Your task to perform on an android device: set default search engine in the chrome app Image 0: 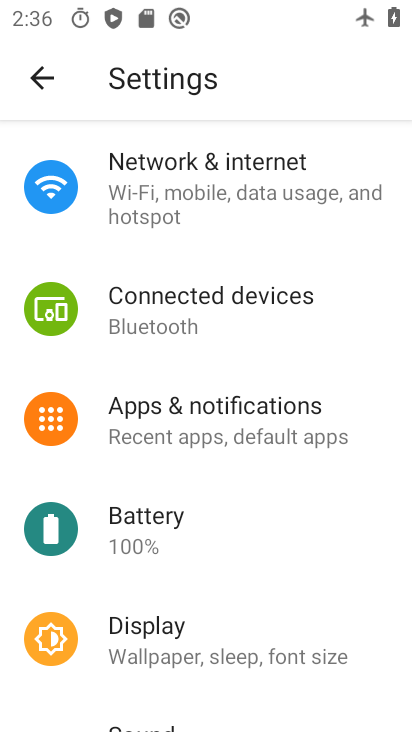
Step 0: press home button
Your task to perform on an android device: set default search engine in the chrome app Image 1: 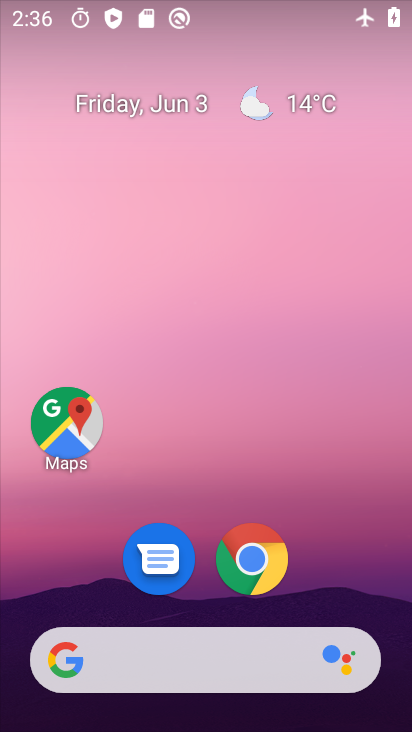
Step 1: click (257, 552)
Your task to perform on an android device: set default search engine in the chrome app Image 2: 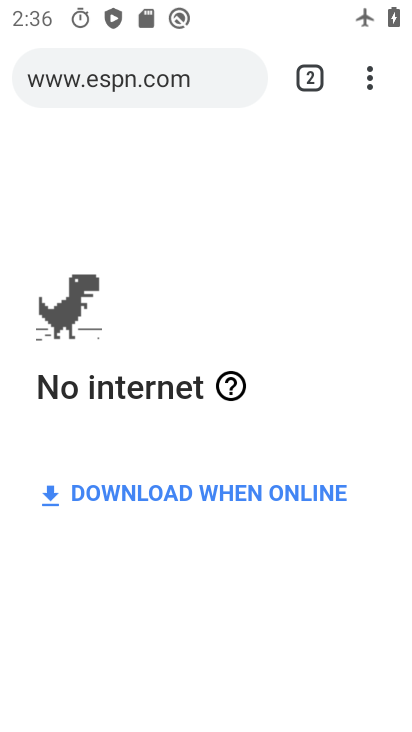
Step 2: drag from (365, 72) to (108, 650)
Your task to perform on an android device: set default search engine in the chrome app Image 3: 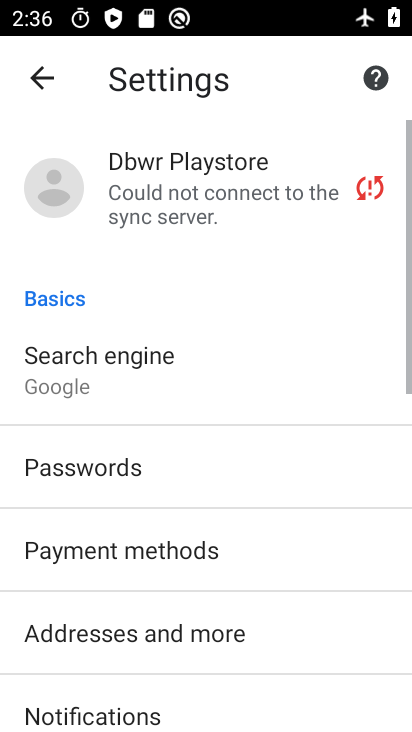
Step 3: click (77, 380)
Your task to perform on an android device: set default search engine in the chrome app Image 4: 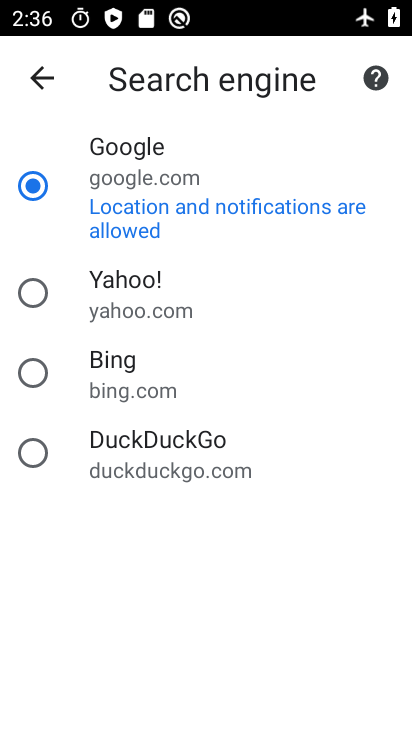
Step 4: task complete